Your task to perform on an android device: check data usage Image 0: 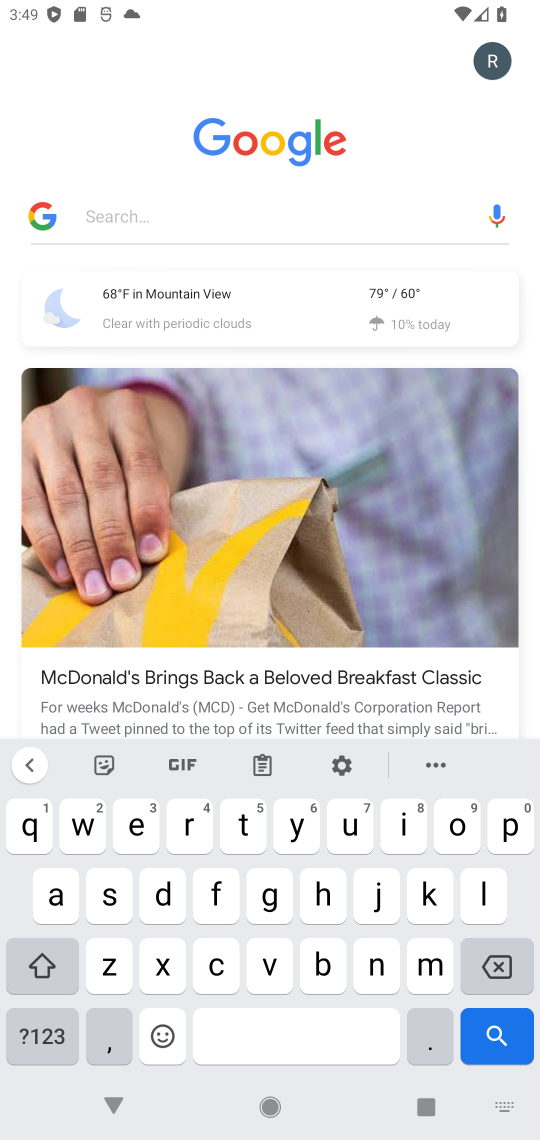
Step 0: press home button
Your task to perform on an android device: check data usage Image 1: 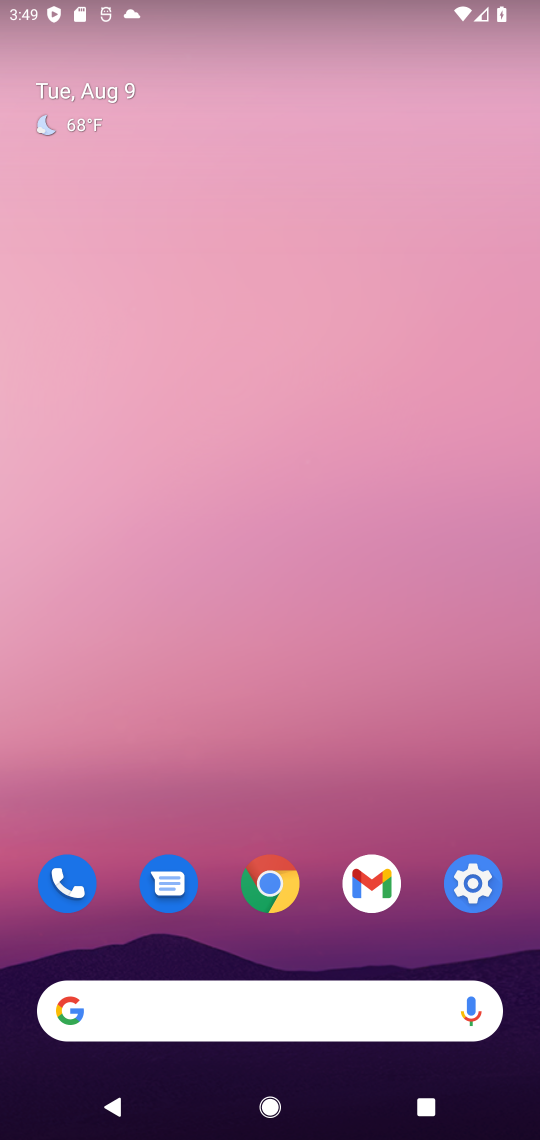
Step 1: drag from (336, 1022) to (293, 359)
Your task to perform on an android device: check data usage Image 2: 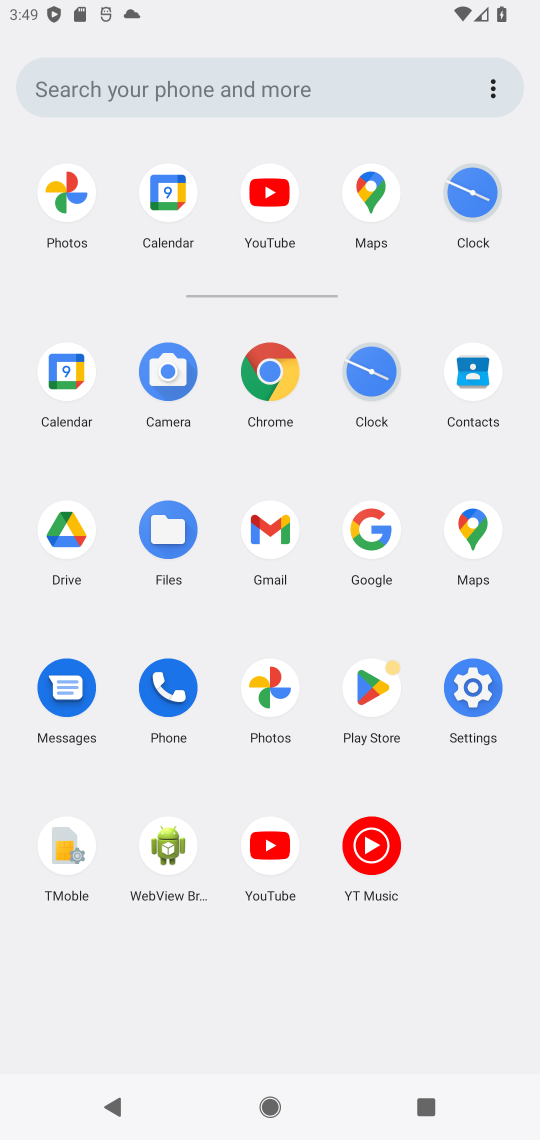
Step 2: click (464, 691)
Your task to perform on an android device: check data usage Image 3: 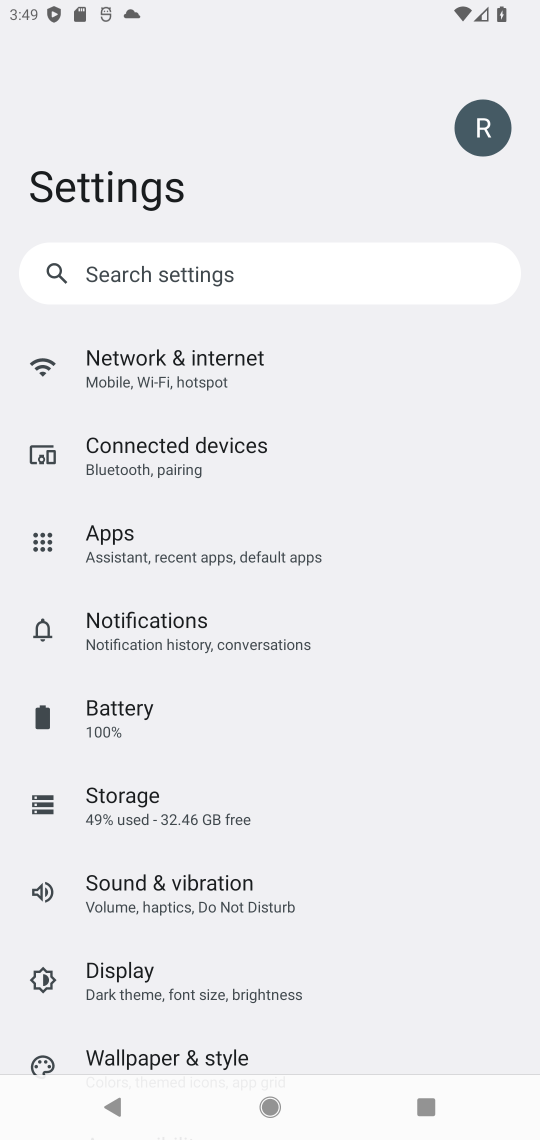
Step 3: click (188, 270)
Your task to perform on an android device: check data usage Image 4: 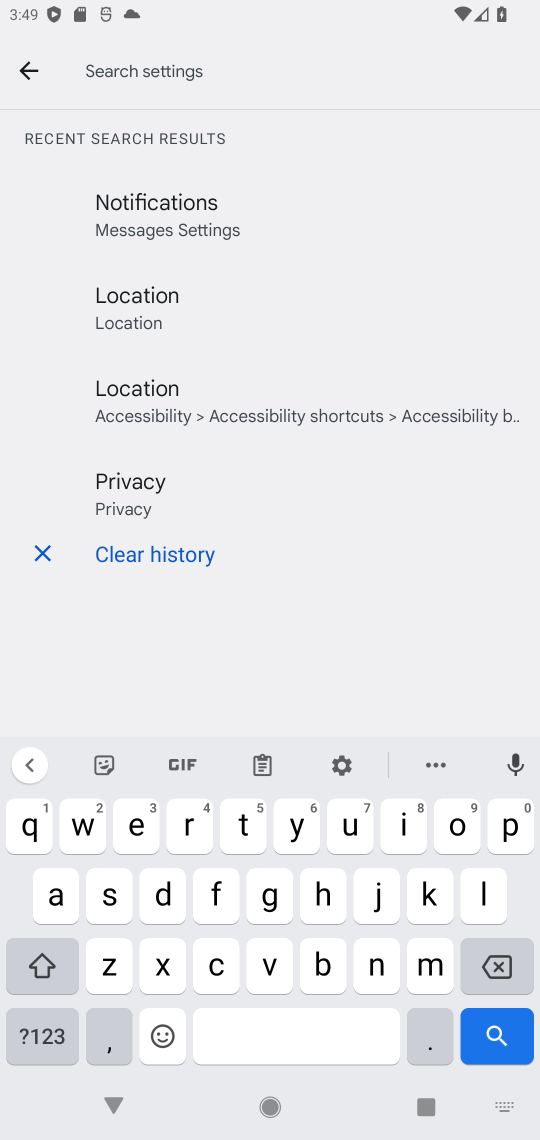
Step 4: click (161, 901)
Your task to perform on an android device: check data usage Image 5: 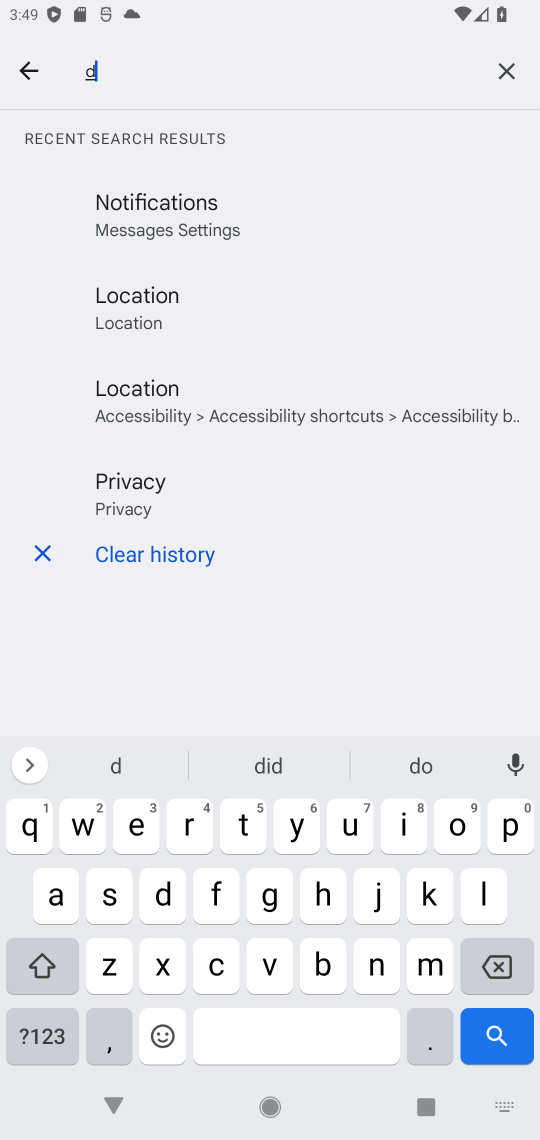
Step 5: click (48, 897)
Your task to perform on an android device: check data usage Image 6: 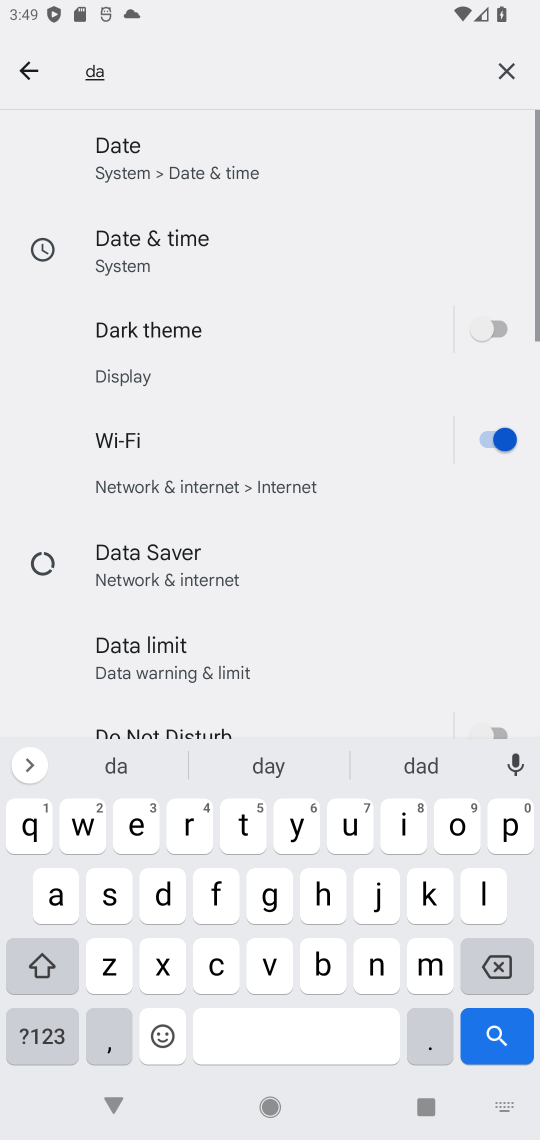
Step 6: click (247, 818)
Your task to perform on an android device: check data usage Image 7: 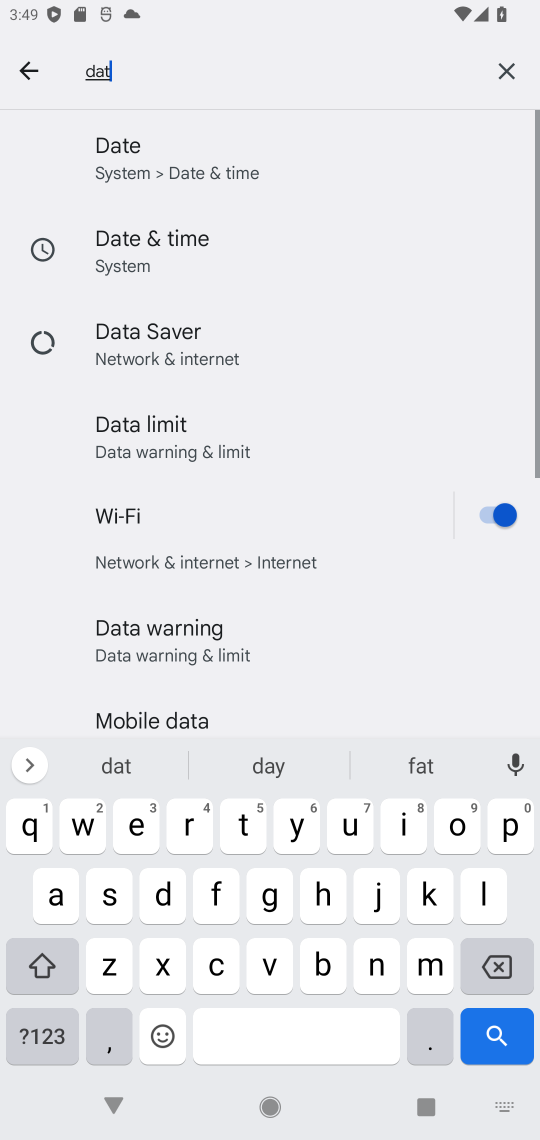
Step 7: click (49, 891)
Your task to perform on an android device: check data usage Image 8: 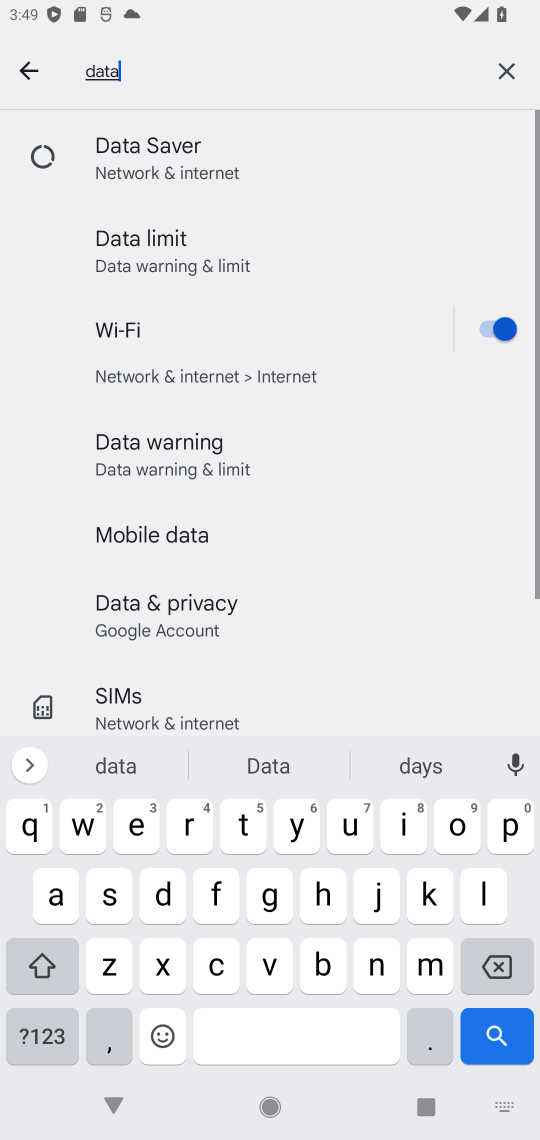
Step 8: click (289, 1044)
Your task to perform on an android device: check data usage Image 9: 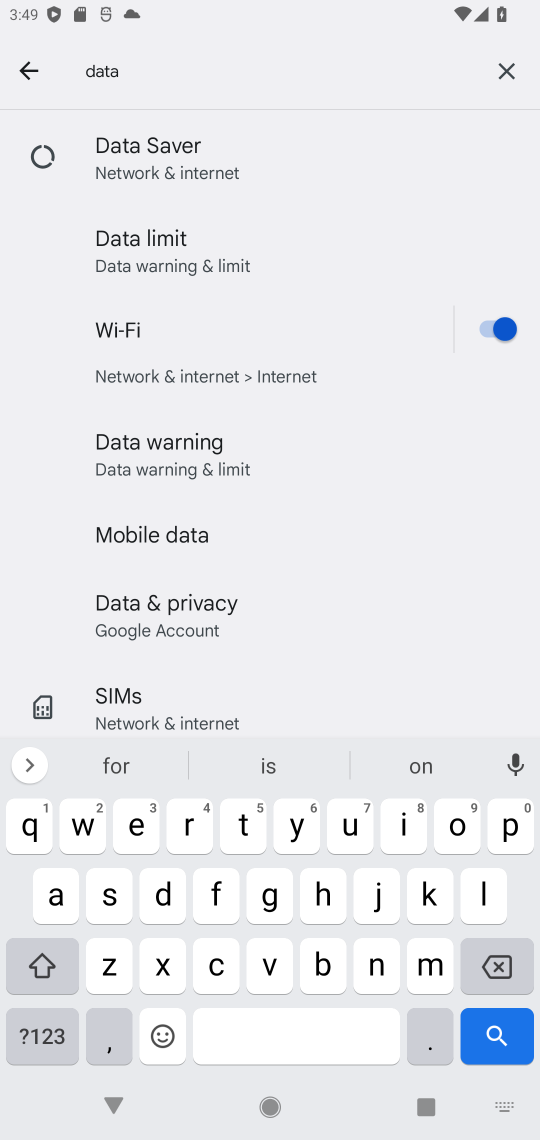
Step 9: click (344, 817)
Your task to perform on an android device: check data usage Image 10: 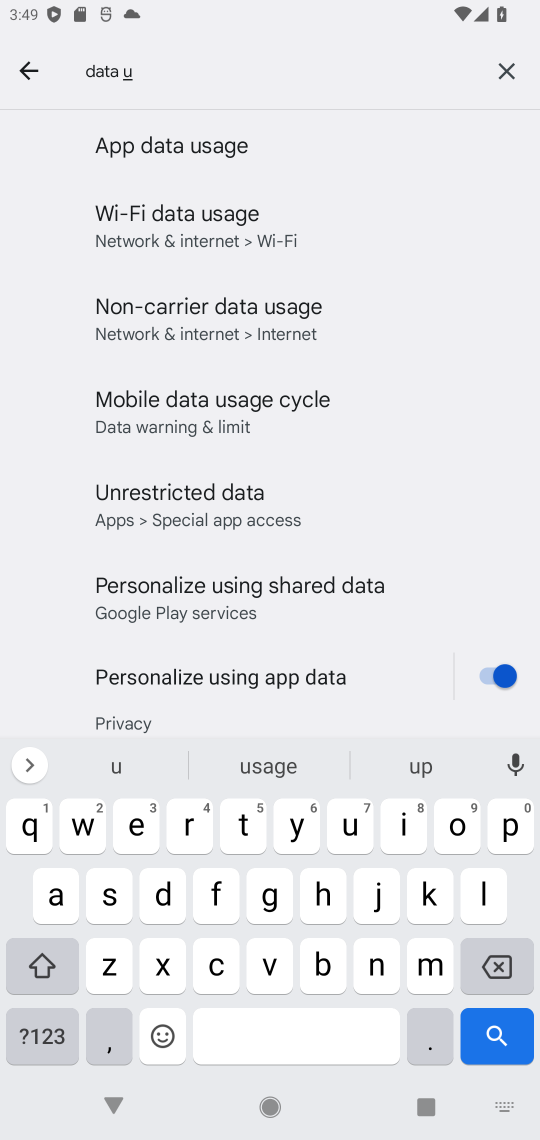
Step 10: click (220, 142)
Your task to perform on an android device: check data usage Image 11: 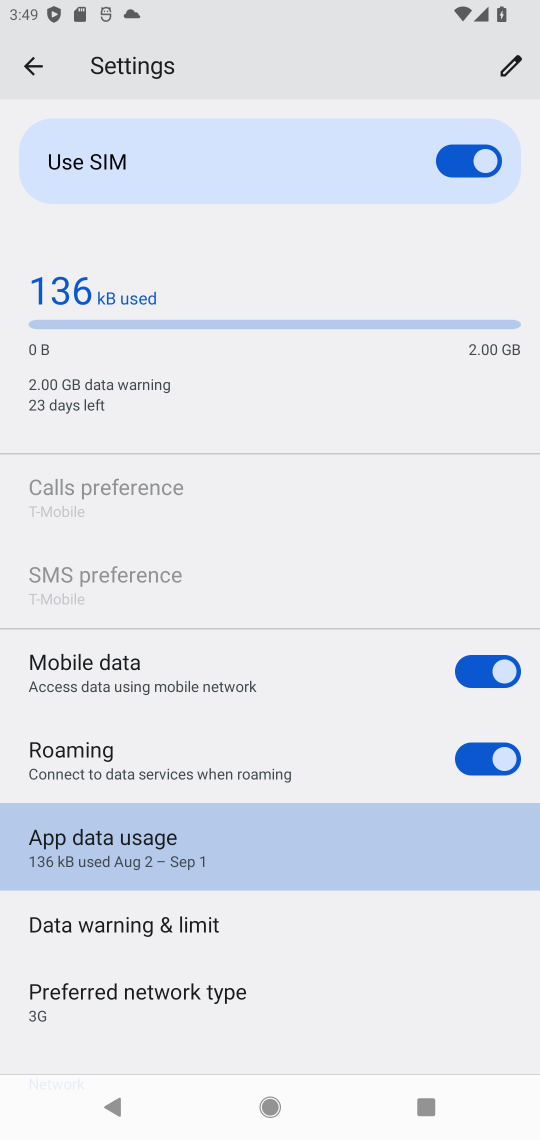
Step 11: click (127, 837)
Your task to perform on an android device: check data usage Image 12: 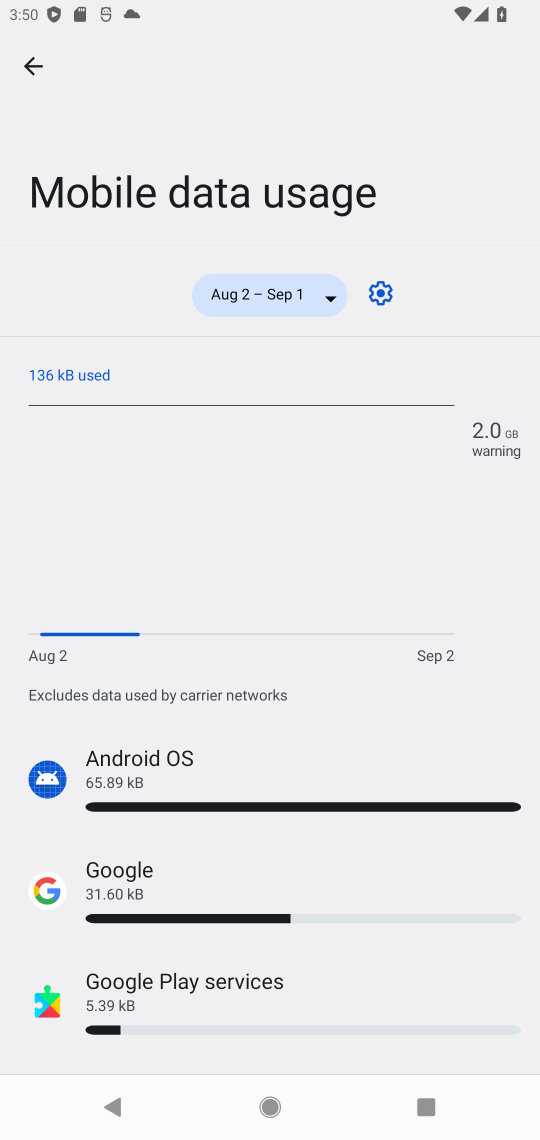
Step 12: task complete